Your task to perform on an android device: allow notifications from all sites in the chrome app Image 0: 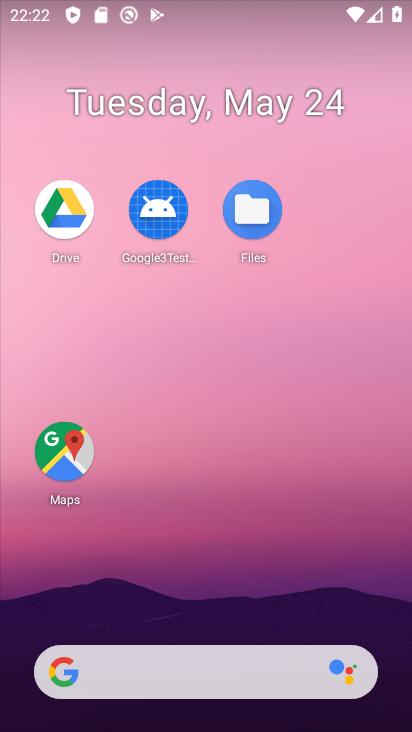
Step 0: drag from (235, 621) to (235, 63)
Your task to perform on an android device: allow notifications from all sites in the chrome app Image 1: 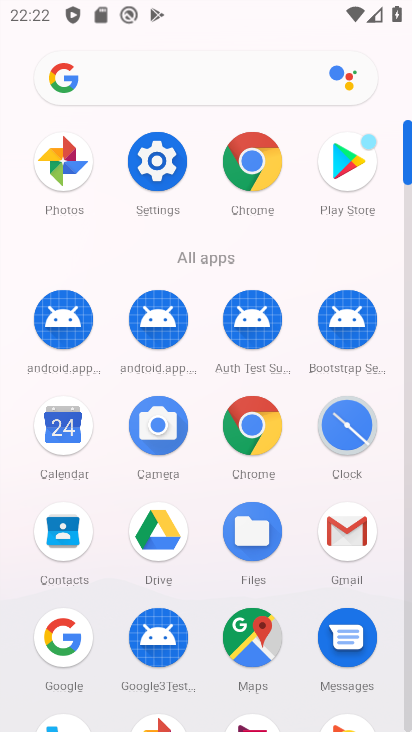
Step 1: click (253, 424)
Your task to perform on an android device: allow notifications from all sites in the chrome app Image 2: 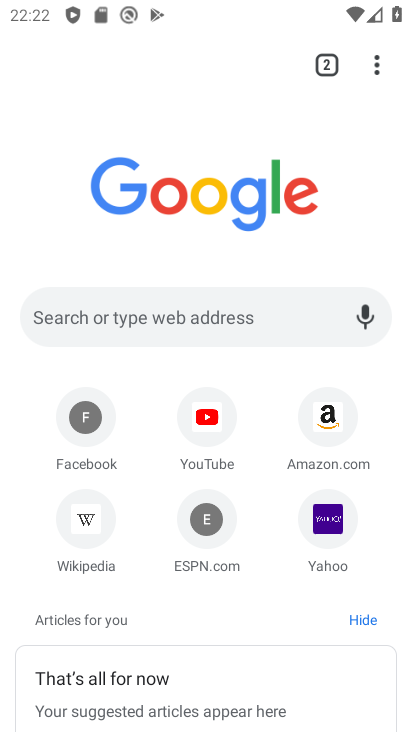
Step 2: click (374, 74)
Your task to perform on an android device: allow notifications from all sites in the chrome app Image 3: 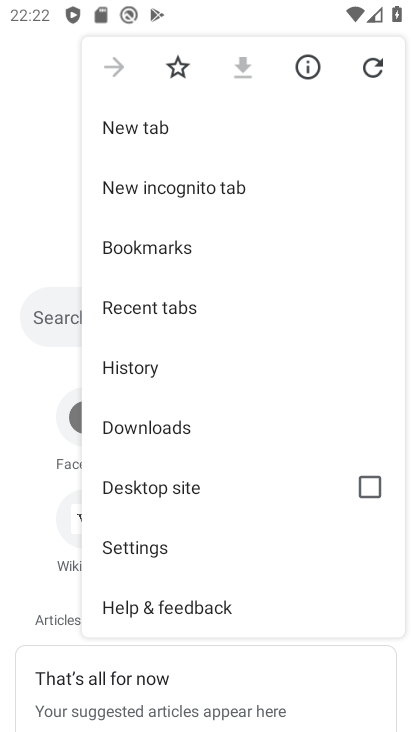
Step 3: click (135, 549)
Your task to perform on an android device: allow notifications from all sites in the chrome app Image 4: 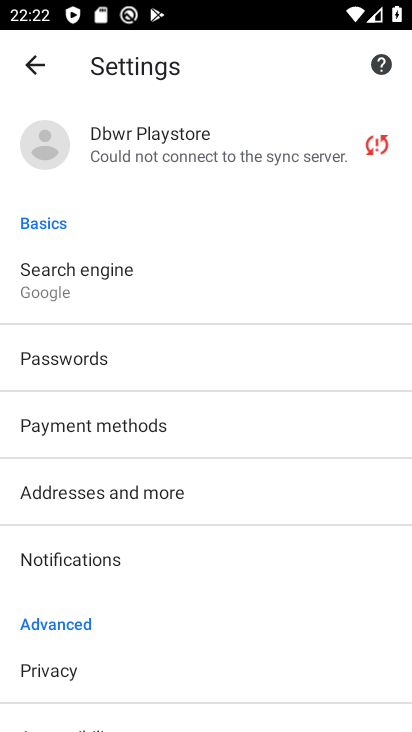
Step 4: drag from (135, 549) to (201, 8)
Your task to perform on an android device: allow notifications from all sites in the chrome app Image 5: 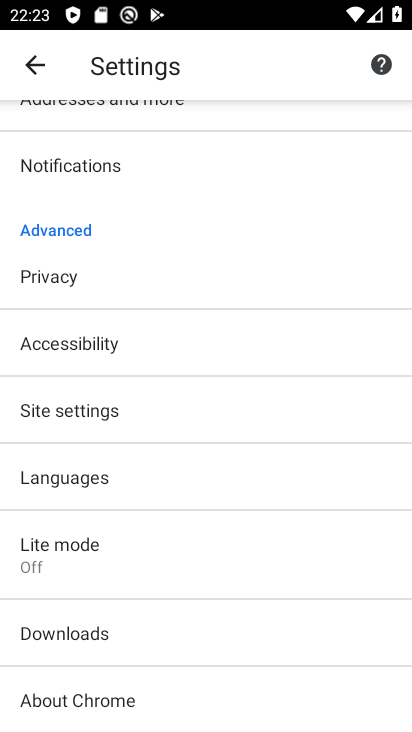
Step 5: click (101, 420)
Your task to perform on an android device: allow notifications from all sites in the chrome app Image 6: 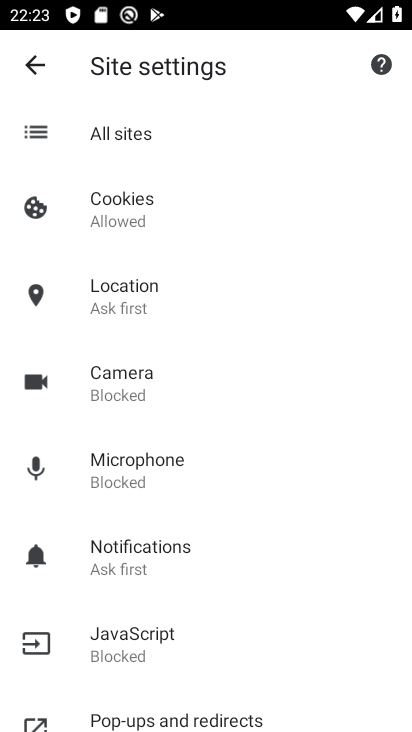
Step 6: click (133, 551)
Your task to perform on an android device: allow notifications from all sites in the chrome app Image 7: 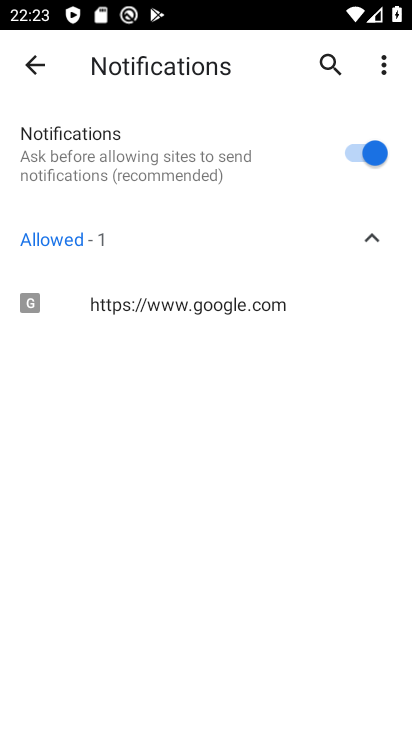
Step 7: task complete